Your task to perform on an android device: Show the shopping cart on newegg.com. Search for razer kraken on newegg.com, select the first entry, add it to the cart, then select checkout. Image 0: 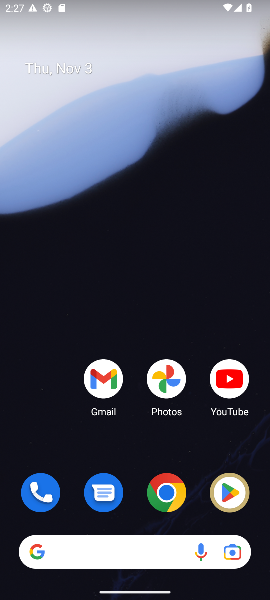
Step 0: click (171, 498)
Your task to perform on an android device: Show the shopping cart on newegg.com. Search for razer kraken on newegg.com, select the first entry, add it to the cart, then select checkout. Image 1: 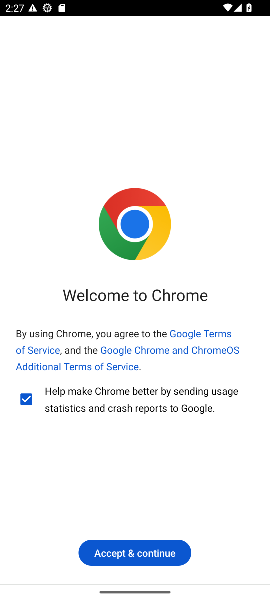
Step 1: click (125, 557)
Your task to perform on an android device: Show the shopping cart on newegg.com. Search for razer kraken on newegg.com, select the first entry, add it to the cart, then select checkout. Image 2: 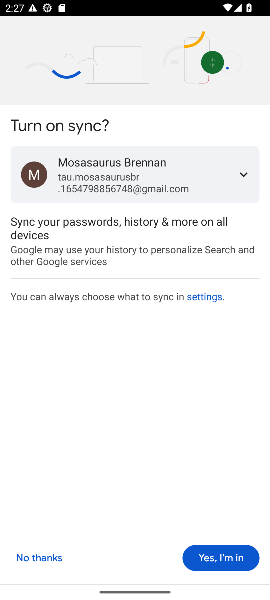
Step 2: click (211, 559)
Your task to perform on an android device: Show the shopping cart on newegg.com. Search for razer kraken on newegg.com, select the first entry, add it to the cart, then select checkout. Image 3: 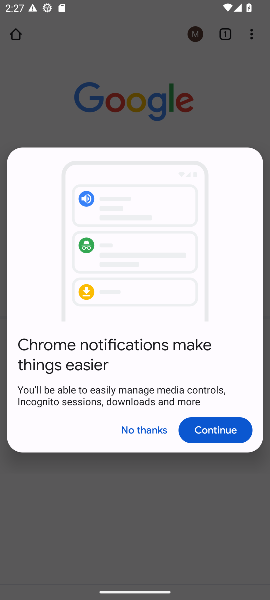
Step 3: click (109, 424)
Your task to perform on an android device: Show the shopping cart on newegg.com. Search for razer kraken on newegg.com, select the first entry, add it to the cart, then select checkout. Image 4: 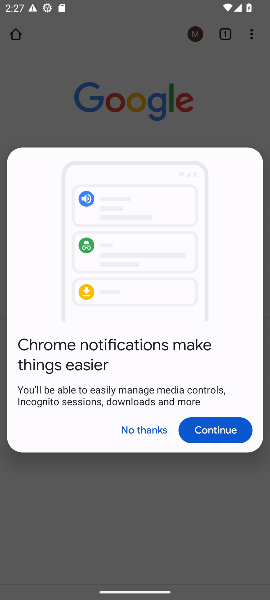
Step 4: click (133, 435)
Your task to perform on an android device: Show the shopping cart on newegg.com. Search for razer kraken on newegg.com, select the first entry, add it to the cart, then select checkout. Image 5: 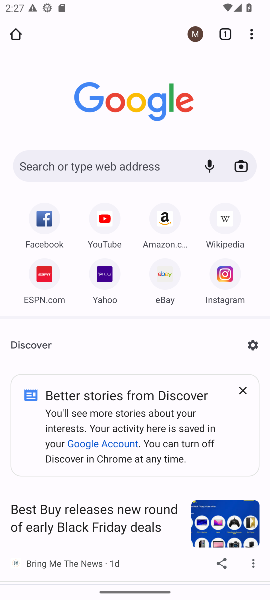
Step 5: click (136, 165)
Your task to perform on an android device: Show the shopping cart on newegg.com. Search for razer kraken on newegg.com, select the first entry, add it to the cart, then select checkout. Image 6: 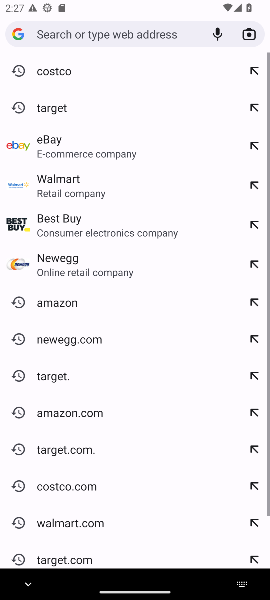
Step 6: type "newegg.com"
Your task to perform on an android device: Show the shopping cart on newegg.com. Search for razer kraken on newegg.com, select the first entry, add it to the cart, then select checkout. Image 7: 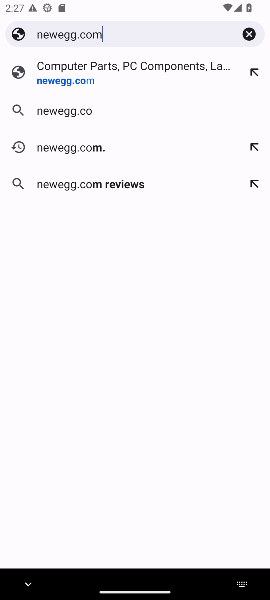
Step 7: type ""
Your task to perform on an android device: Show the shopping cart on newegg.com. Search for razer kraken on newegg.com, select the first entry, add it to the cart, then select checkout. Image 8: 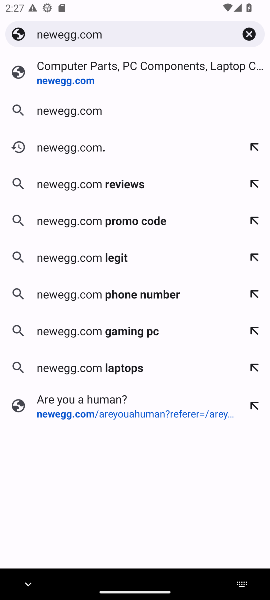
Step 8: click (128, 74)
Your task to perform on an android device: Show the shopping cart on newegg.com. Search for razer kraken on newegg.com, select the first entry, add it to the cart, then select checkout. Image 9: 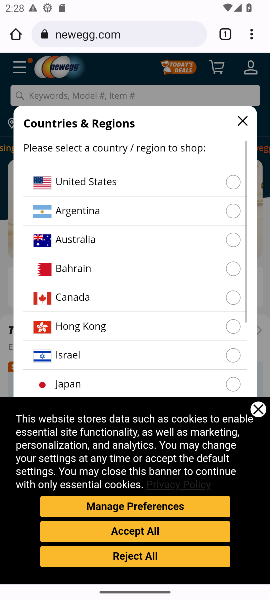
Step 9: click (181, 557)
Your task to perform on an android device: Show the shopping cart on newegg.com. Search for razer kraken on newegg.com, select the first entry, add it to the cart, then select checkout. Image 10: 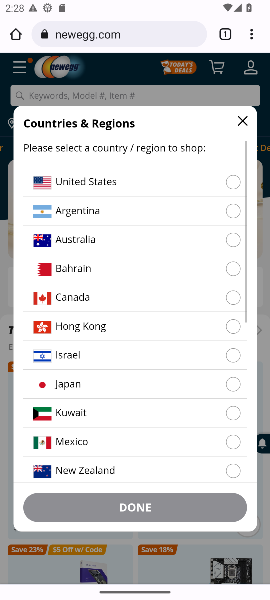
Step 10: click (227, 187)
Your task to perform on an android device: Show the shopping cart on newegg.com. Search for razer kraken on newegg.com, select the first entry, add it to the cart, then select checkout. Image 11: 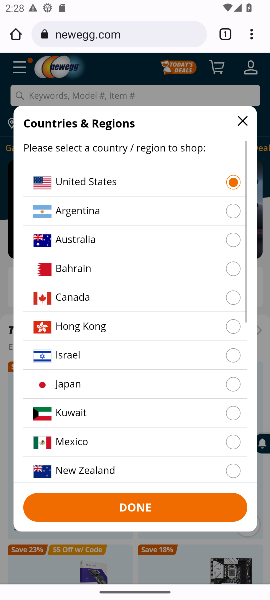
Step 11: click (159, 500)
Your task to perform on an android device: Show the shopping cart on newegg.com. Search for razer kraken on newegg.com, select the first entry, add it to the cart, then select checkout. Image 12: 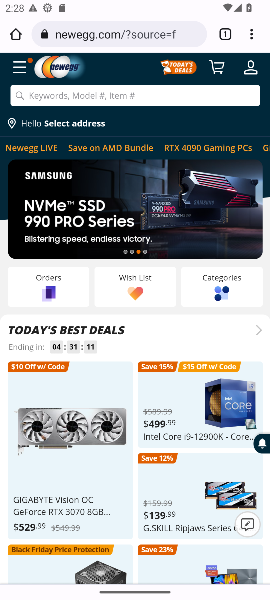
Step 12: click (66, 90)
Your task to perform on an android device: Show the shopping cart on newegg.com. Search for razer kraken on newegg.com, select the first entry, add it to the cart, then select checkout. Image 13: 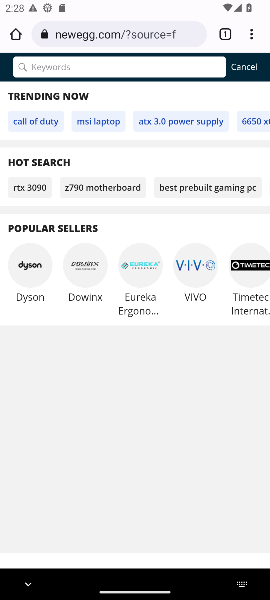
Step 13: type "razer kraken "
Your task to perform on an android device: Show the shopping cart on newegg.com. Search for razer kraken on newegg.com, select the first entry, add it to the cart, then select checkout. Image 14: 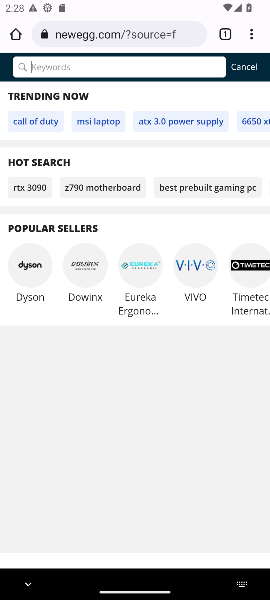
Step 14: type ""
Your task to perform on an android device: Show the shopping cart on newegg.com. Search for razer kraken on newegg.com, select the first entry, add it to the cart, then select checkout. Image 15: 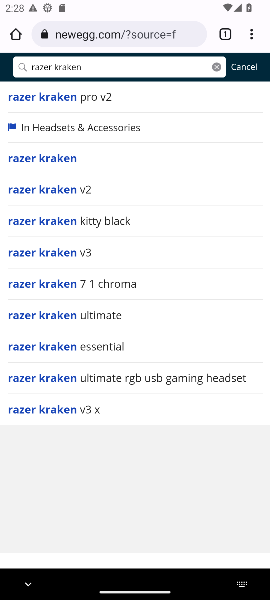
Step 15: press enter
Your task to perform on an android device: Show the shopping cart on newegg.com. Search for razer kraken on newegg.com, select the first entry, add it to the cart, then select checkout. Image 16: 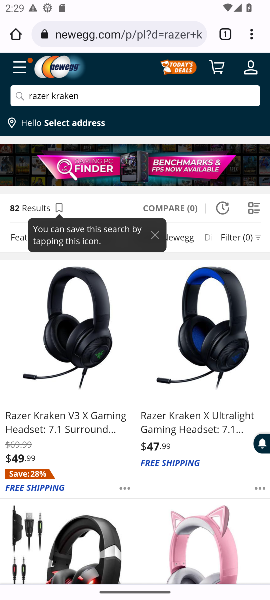
Step 16: click (97, 361)
Your task to perform on an android device: Show the shopping cart on newegg.com. Search for razer kraken on newegg.com, select the first entry, add it to the cart, then select checkout. Image 17: 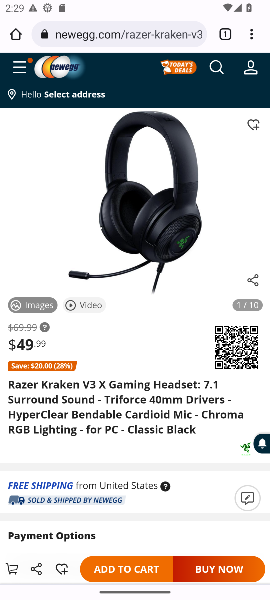
Step 17: click (128, 566)
Your task to perform on an android device: Show the shopping cart on newegg.com. Search for razer kraken on newegg.com, select the first entry, add it to the cart, then select checkout. Image 18: 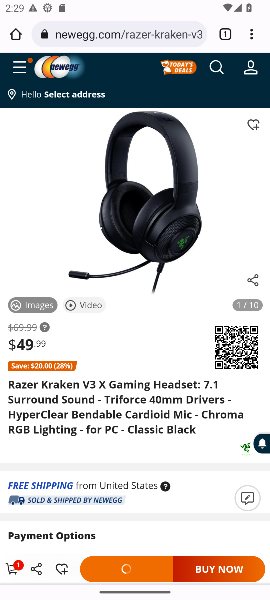
Step 18: click (2, 571)
Your task to perform on an android device: Show the shopping cart on newegg.com. Search for razer kraken on newegg.com, select the first entry, add it to the cart, then select checkout. Image 19: 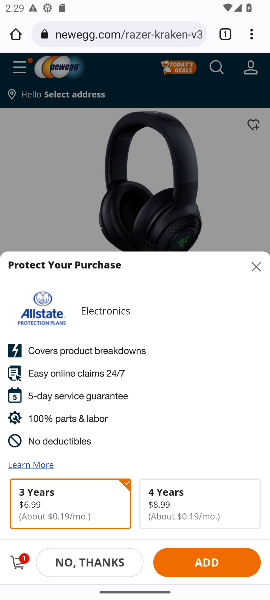
Step 19: click (62, 560)
Your task to perform on an android device: Show the shopping cart on newegg.com. Search for razer kraken on newegg.com, select the first entry, add it to the cart, then select checkout. Image 20: 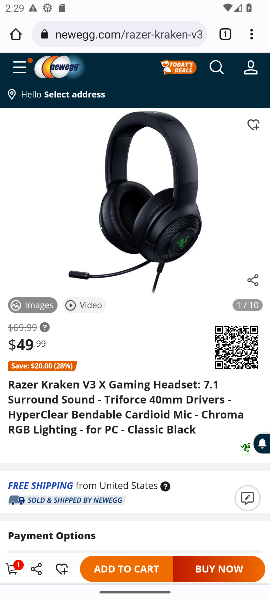
Step 20: click (15, 564)
Your task to perform on an android device: Show the shopping cart on newegg.com. Search for razer kraken on newegg.com, select the first entry, add it to the cart, then select checkout. Image 21: 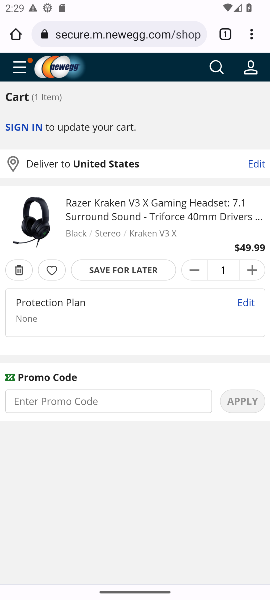
Step 21: click (122, 477)
Your task to perform on an android device: Show the shopping cart on newegg.com. Search for razer kraken on newegg.com, select the first entry, add it to the cart, then select checkout. Image 22: 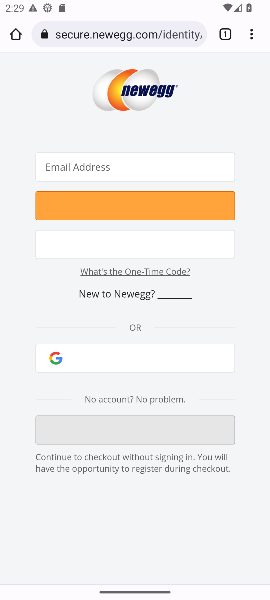
Step 22: task complete